Your task to perform on an android device: Open internet settings Image 0: 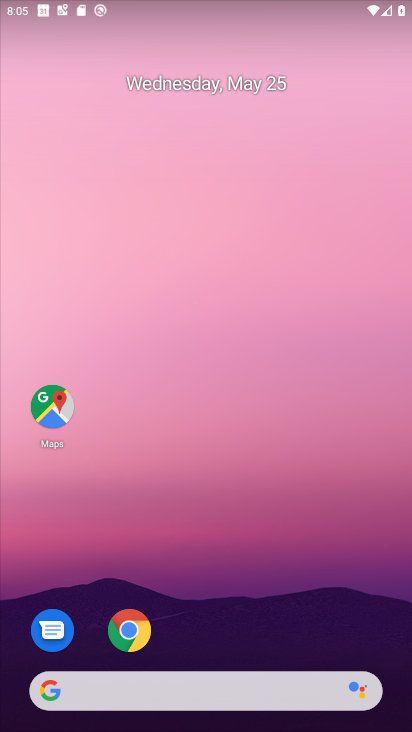
Step 0: drag from (208, 605) to (276, 113)
Your task to perform on an android device: Open internet settings Image 1: 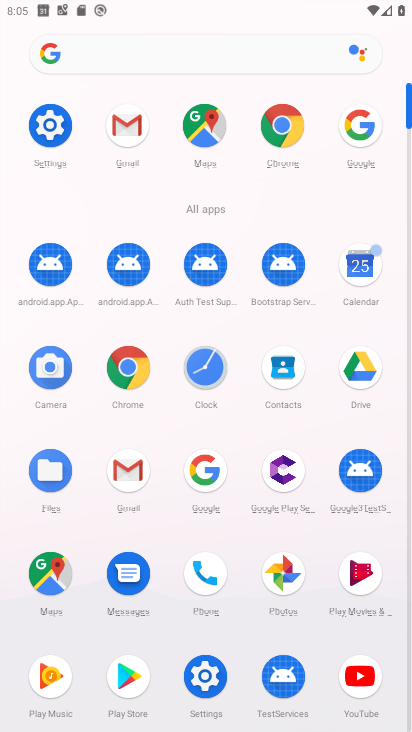
Step 1: click (53, 112)
Your task to perform on an android device: Open internet settings Image 2: 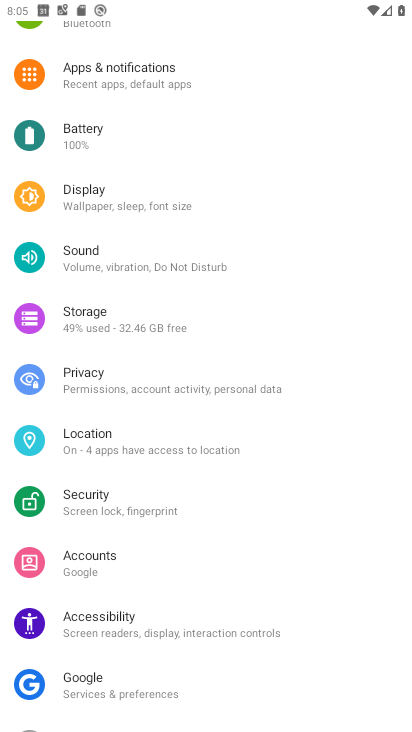
Step 2: drag from (167, 115) to (222, 472)
Your task to perform on an android device: Open internet settings Image 3: 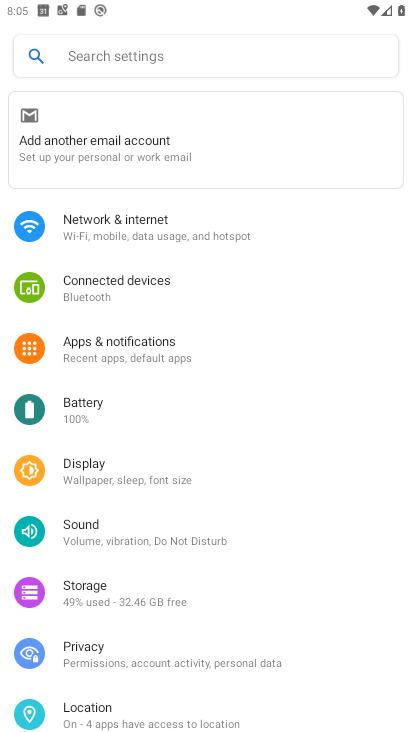
Step 3: click (121, 230)
Your task to perform on an android device: Open internet settings Image 4: 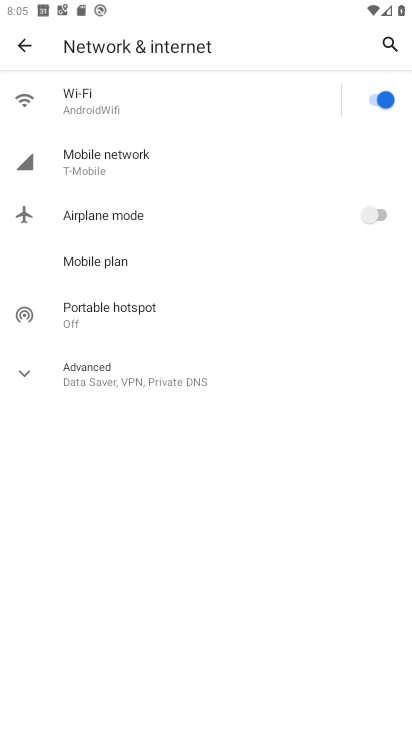
Step 4: click (100, 83)
Your task to perform on an android device: Open internet settings Image 5: 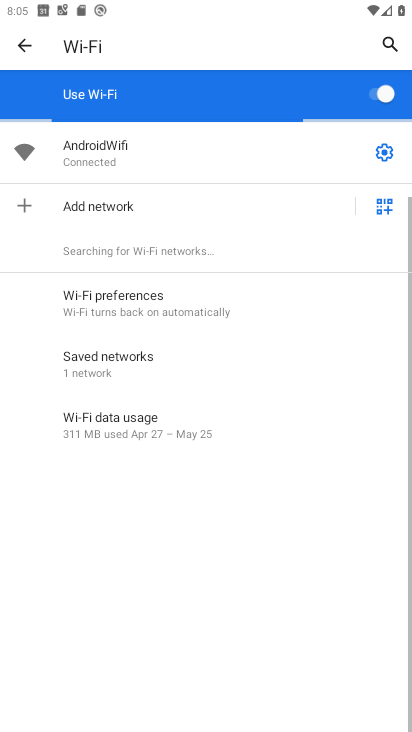
Step 5: click (128, 159)
Your task to perform on an android device: Open internet settings Image 6: 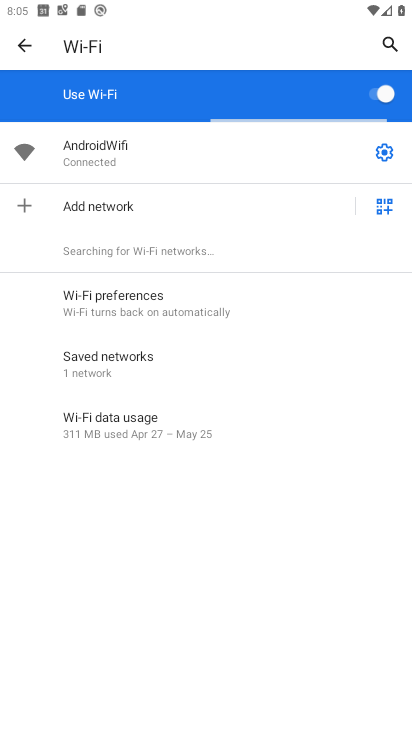
Step 6: click (234, 163)
Your task to perform on an android device: Open internet settings Image 7: 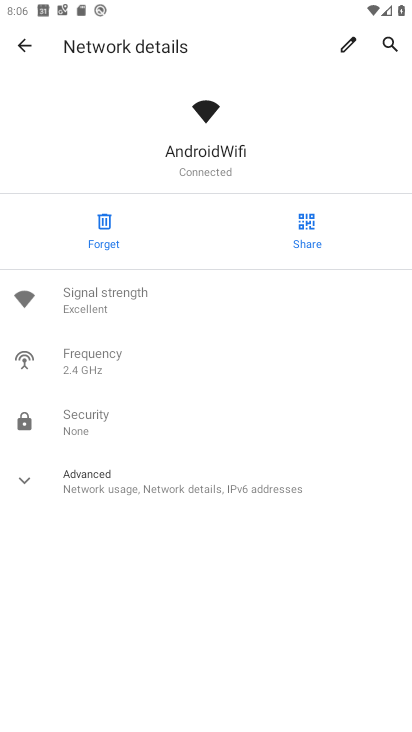
Step 7: task complete